Your task to perform on an android device: Open Yahoo.com Image 0: 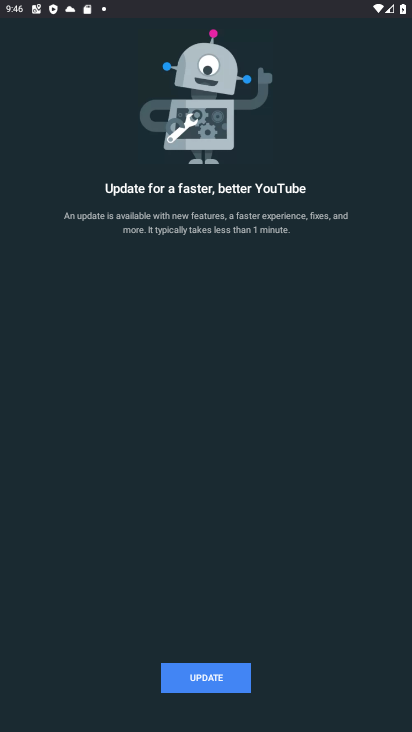
Step 0: press home button
Your task to perform on an android device: Open Yahoo.com Image 1: 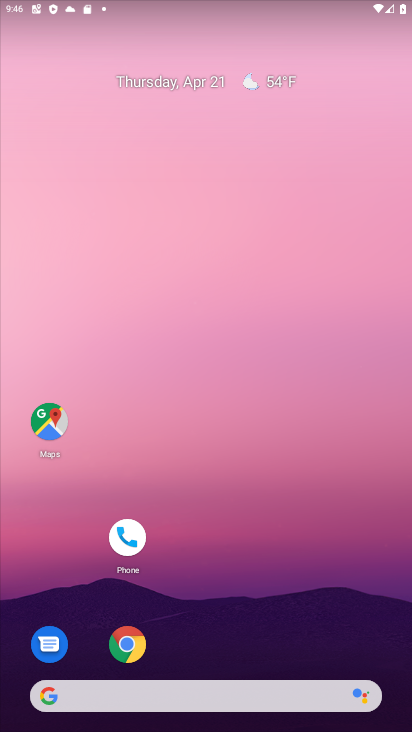
Step 1: drag from (267, 620) to (232, 153)
Your task to perform on an android device: Open Yahoo.com Image 2: 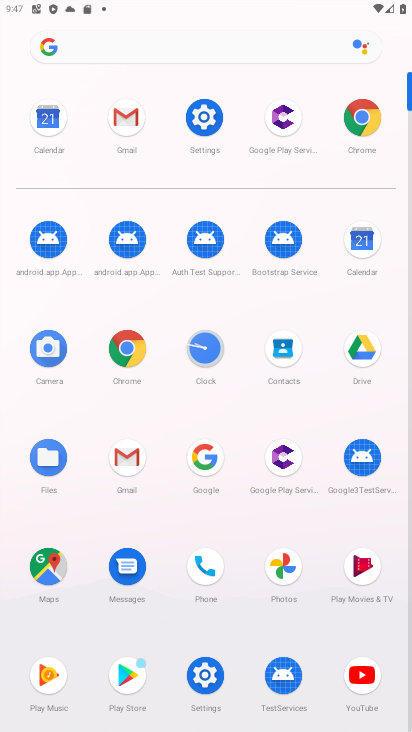
Step 2: click (126, 355)
Your task to perform on an android device: Open Yahoo.com Image 3: 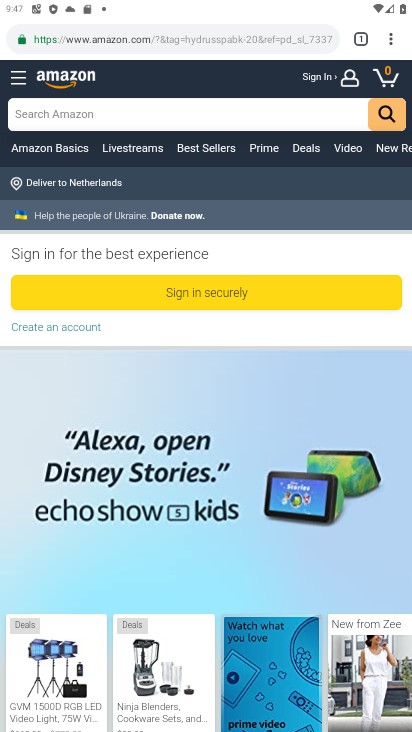
Step 3: click (203, 33)
Your task to perform on an android device: Open Yahoo.com Image 4: 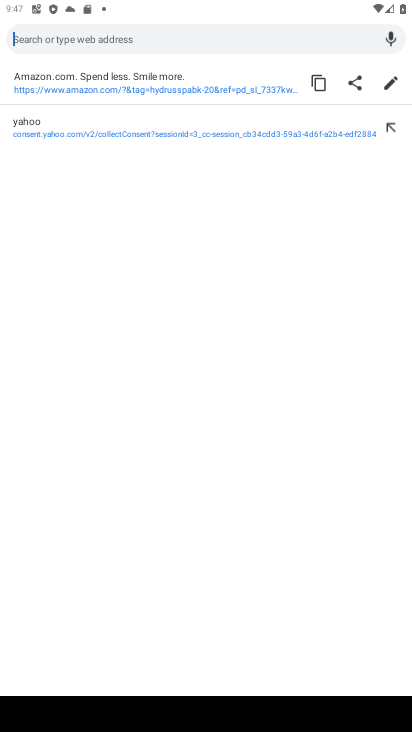
Step 4: click (256, 124)
Your task to perform on an android device: Open Yahoo.com Image 5: 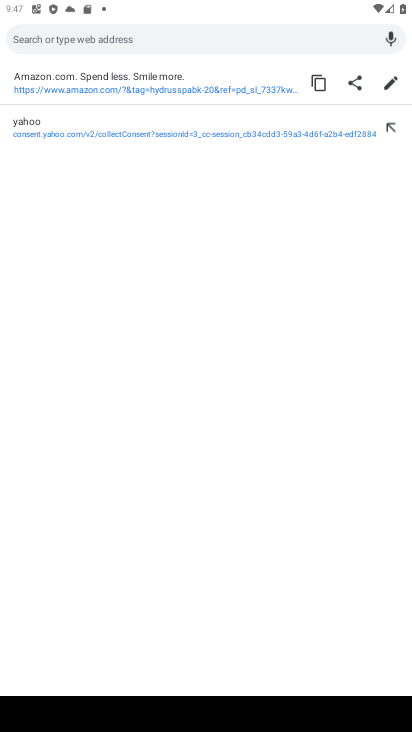
Step 5: click (252, 129)
Your task to perform on an android device: Open Yahoo.com Image 6: 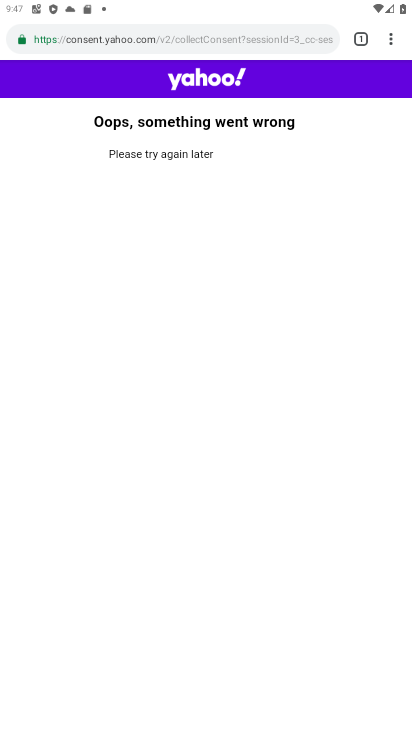
Step 6: task complete